Your task to perform on an android device: delete browsing data in the chrome app Image 0: 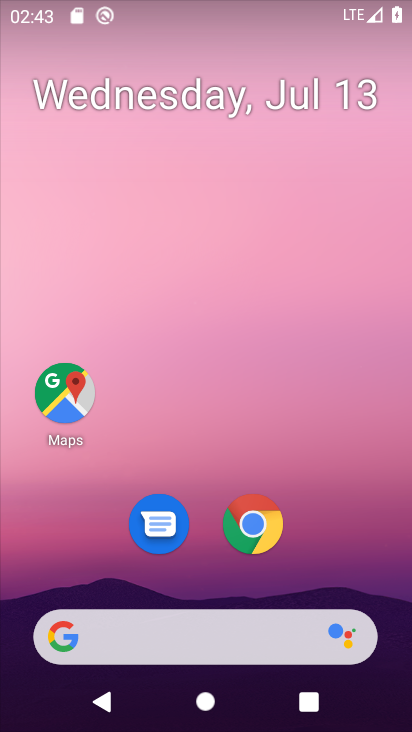
Step 0: click (258, 526)
Your task to perform on an android device: delete browsing data in the chrome app Image 1: 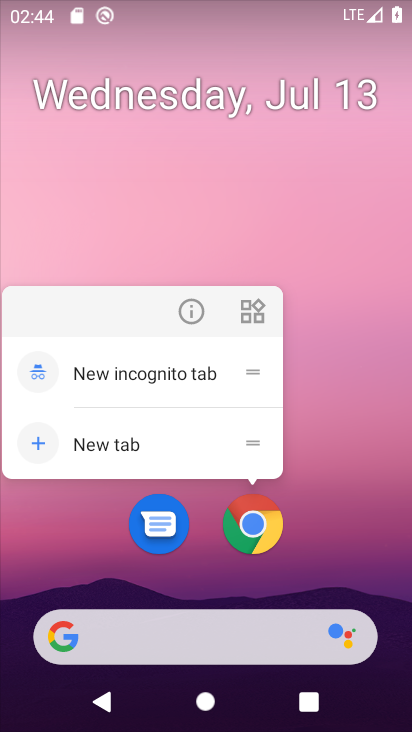
Step 1: click (258, 526)
Your task to perform on an android device: delete browsing data in the chrome app Image 2: 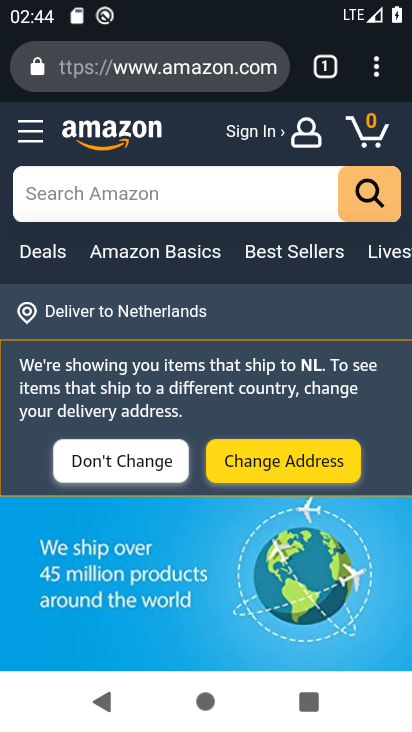
Step 2: click (376, 80)
Your task to perform on an android device: delete browsing data in the chrome app Image 3: 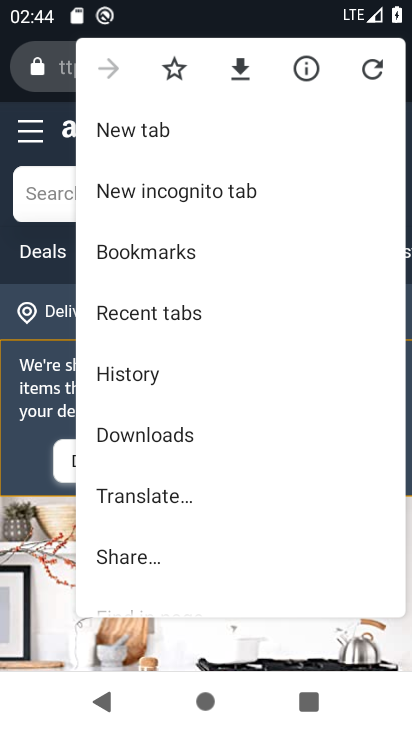
Step 3: click (149, 367)
Your task to perform on an android device: delete browsing data in the chrome app Image 4: 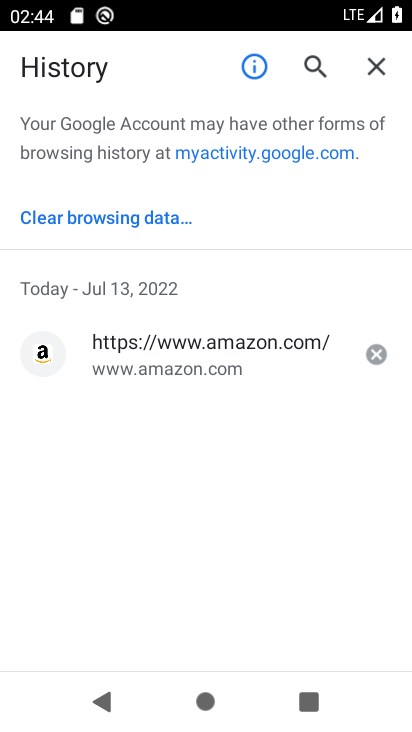
Step 4: click (151, 213)
Your task to perform on an android device: delete browsing data in the chrome app Image 5: 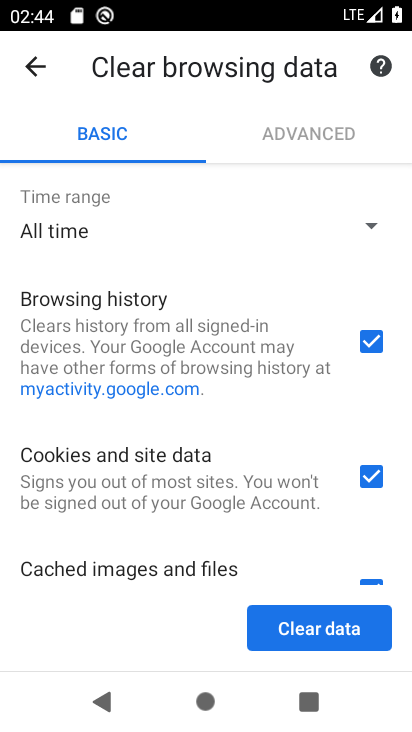
Step 5: click (336, 623)
Your task to perform on an android device: delete browsing data in the chrome app Image 6: 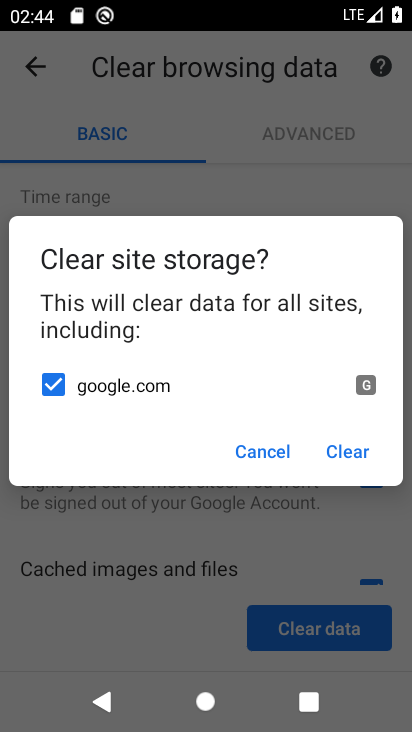
Step 6: click (358, 448)
Your task to perform on an android device: delete browsing data in the chrome app Image 7: 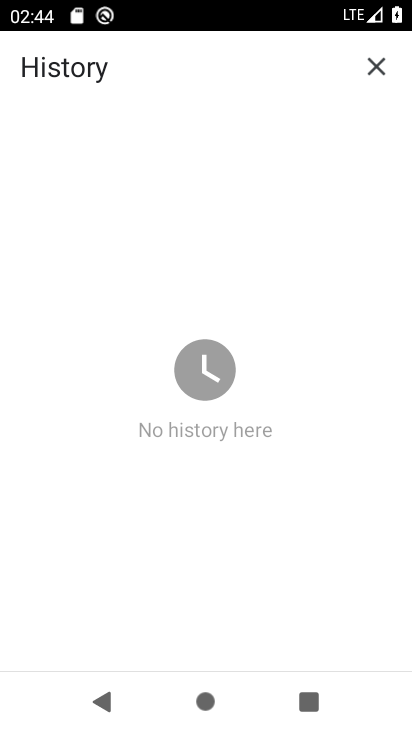
Step 7: task complete